Your task to perform on an android device: find snoozed emails in the gmail app Image 0: 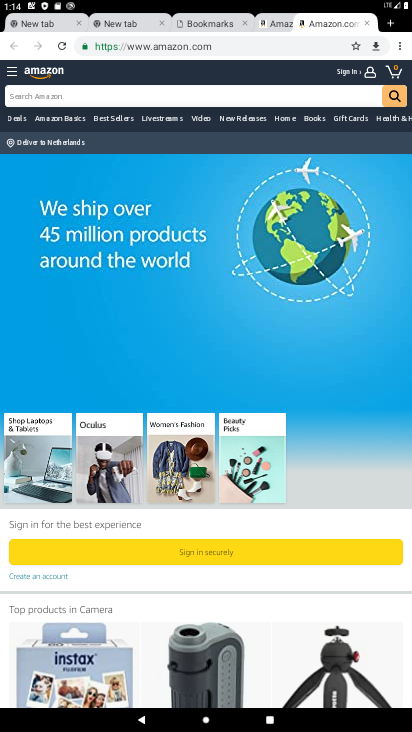
Step 0: press home button
Your task to perform on an android device: find snoozed emails in the gmail app Image 1: 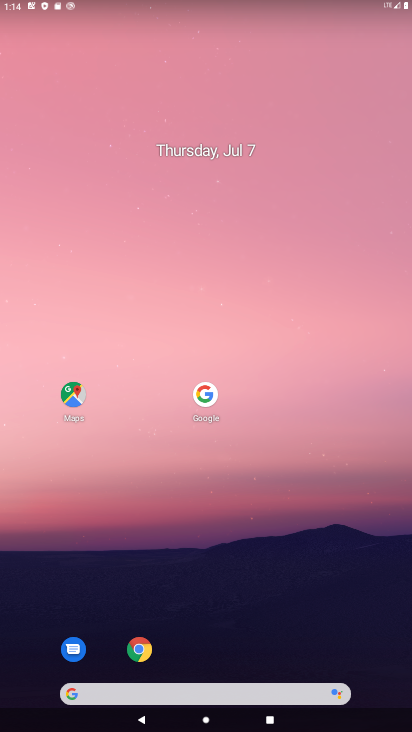
Step 1: drag from (303, 542) to (387, 60)
Your task to perform on an android device: find snoozed emails in the gmail app Image 2: 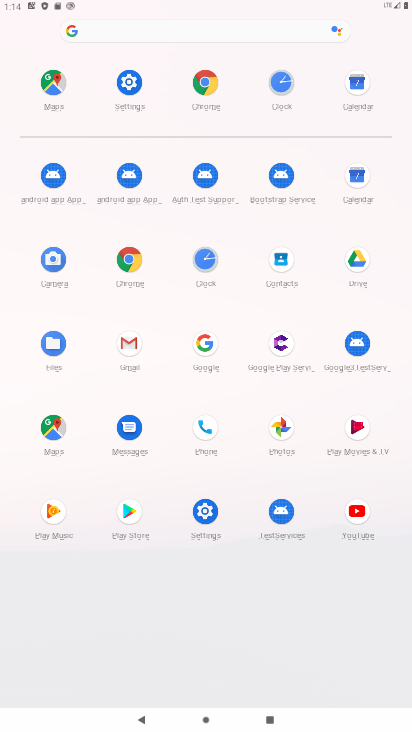
Step 2: click (136, 341)
Your task to perform on an android device: find snoozed emails in the gmail app Image 3: 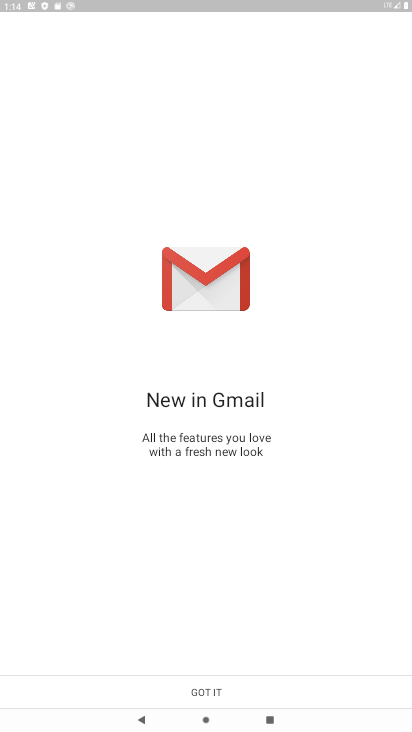
Step 3: click (198, 694)
Your task to perform on an android device: find snoozed emails in the gmail app Image 4: 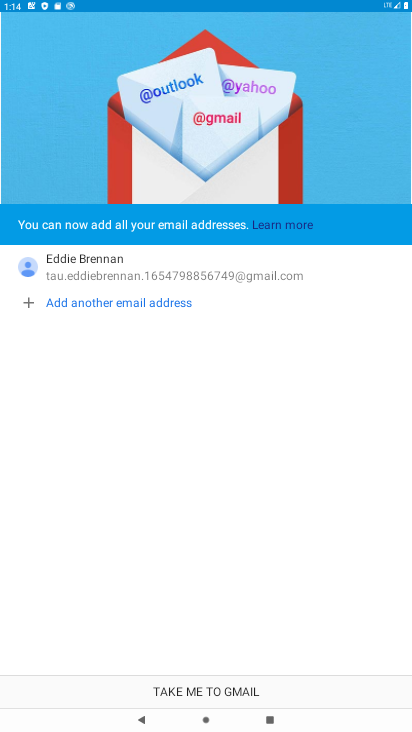
Step 4: click (206, 688)
Your task to perform on an android device: find snoozed emails in the gmail app Image 5: 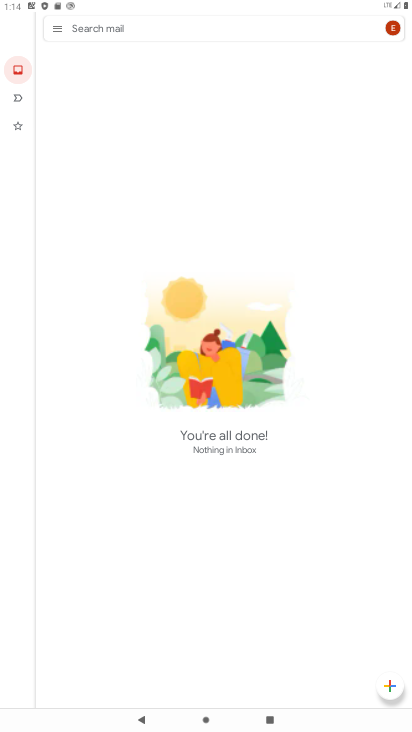
Step 5: click (59, 24)
Your task to perform on an android device: find snoozed emails in the gmail app Image 6: 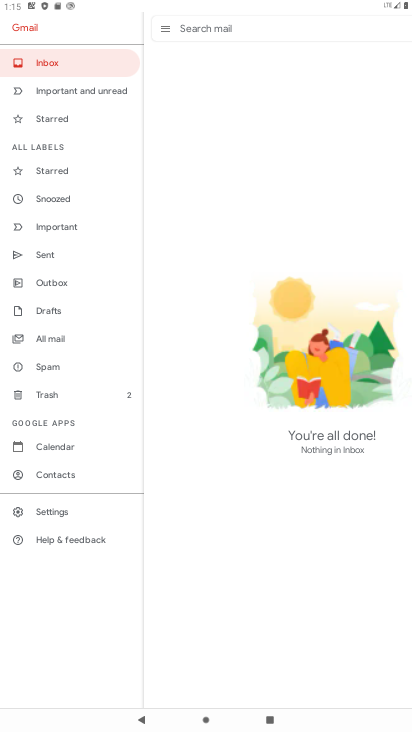
Step 6: click (75, 194)
Your task to perform on an android device: find snoozed emails in the gmail app Image 7: 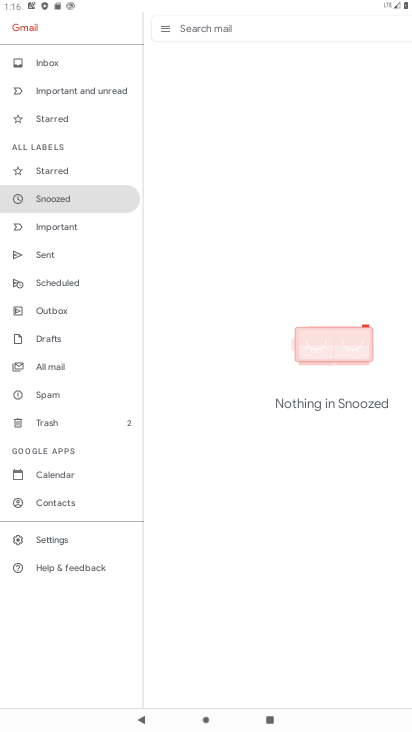
Step 7: task complete